Your task to perform on an android device: What is the news today? Image 0: 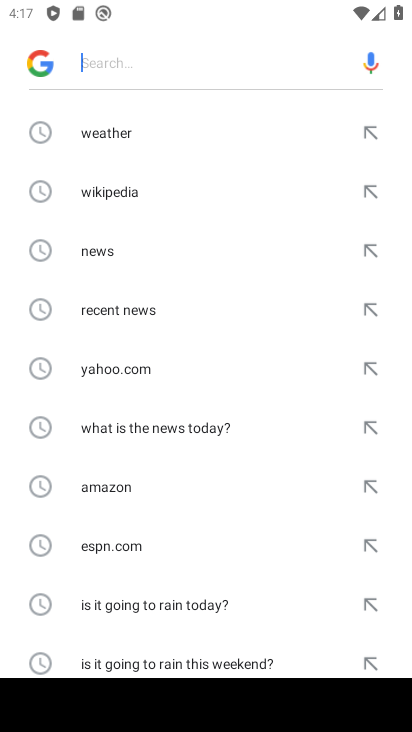
Step 0: press home button
Your task to perform on an android device: What is the news today? Image 1: 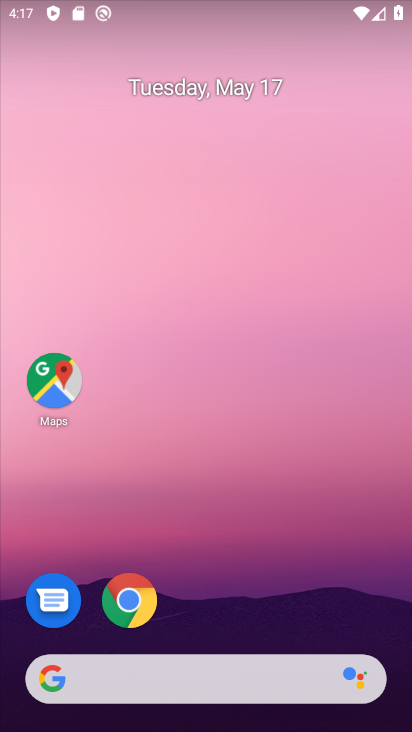
Step 1: task complete